Your task to perform on an android device: Open Wikipedia Image 0: 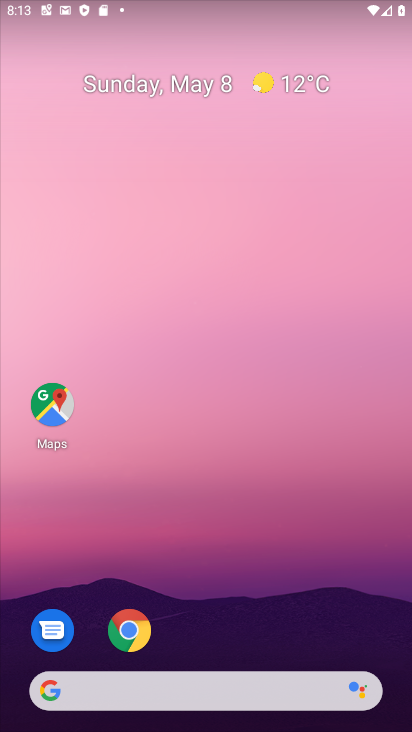
Step 0: click (121, 636)
Your task to perform on an android device: Open Wikipedia Image 1: 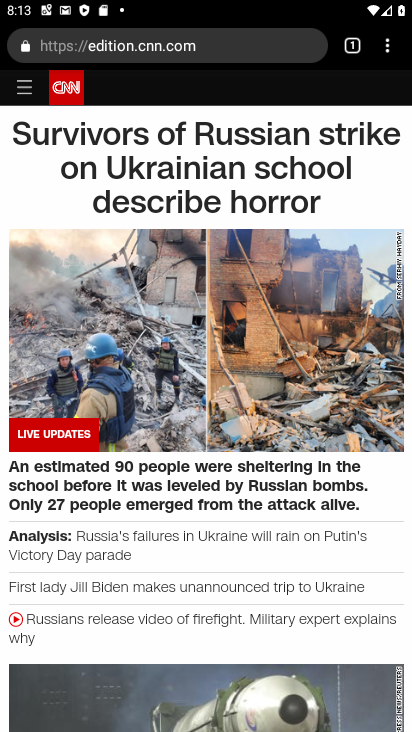
Step 1: click (351, 46)
Your task to perform on an android device: Open Wikipedia Image 2: 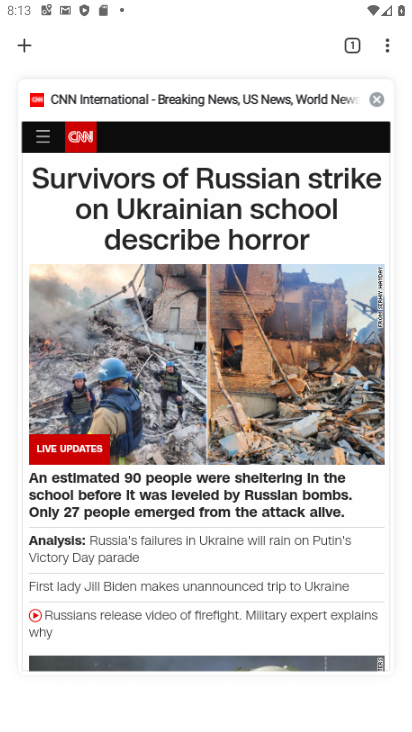
Step 2: click (24, 45)
Your task to perform on an android device: Open Wikipedia Image 3: 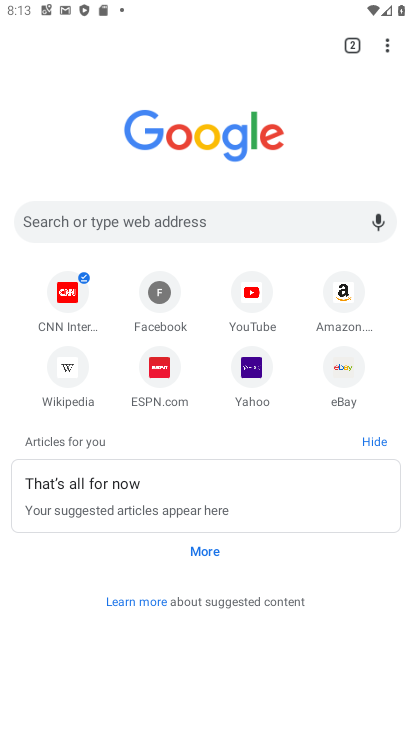
Step 3: click (67, 381)
Your task to perform on an android device: Open Wikipedia Image 4: 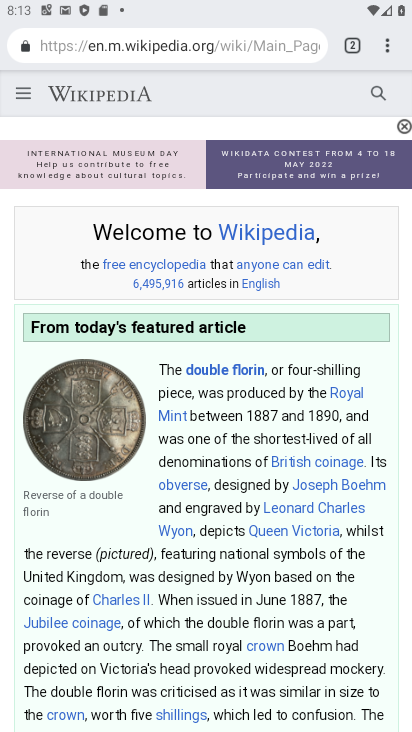
Step 4: task complete